Your task to perform on an android device: Show me productivity apps on the Play Store Image 0: 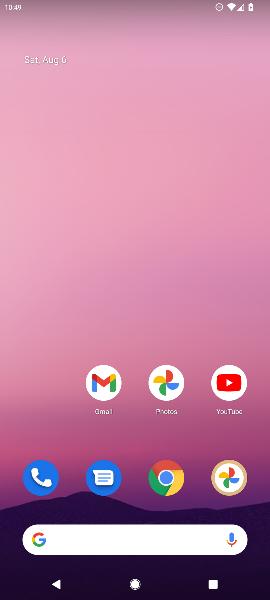
Step 0: drag from (132, 518) to (137, 76)
Your task to perform on an android device: Show me productivity apps on the Play Store Image 1: 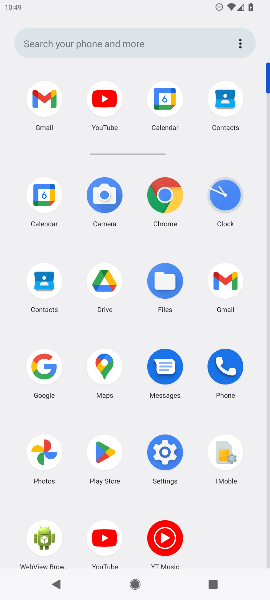
Step 1: click (95, 452)
Your task to perform on an android device: Show me productivity apps on the Play Store Image 2: 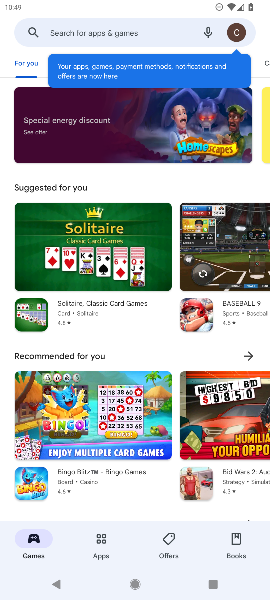
Step 2: click (93, 538)
Your task to perform on an android device: Show me productivity apps on the Play Store Image 3: 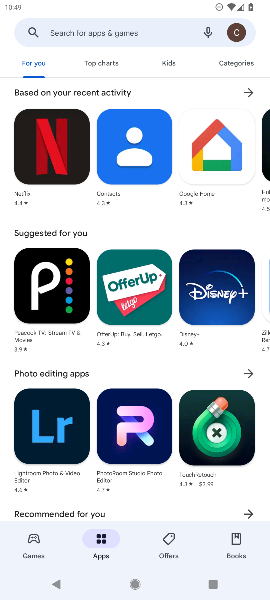
Step 3: click (232, 62)
Your task to perform on an android device: Show me productivity apps on the Play Store Image 4: 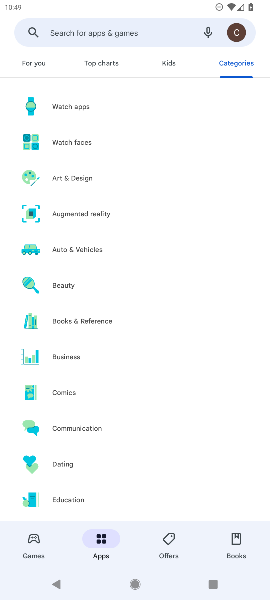
Step 4: drag from (82, 457) to (84, 216)
Your task to perform on an android device: Show me productivity apps on the Play Store Image 5: 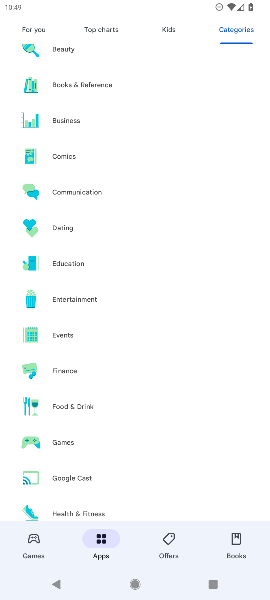
Step 5: drag from (67, 494) to (79, 298)
Your task to perform on an android device: Show me productivity apps on the Play Store Image 6: 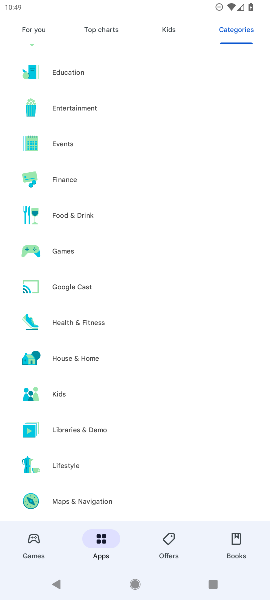
Step 6: drag from (95, 483) to (65, 262)
Your task to perform on an android device: Show me productivity apps on the Play Store Image 7: 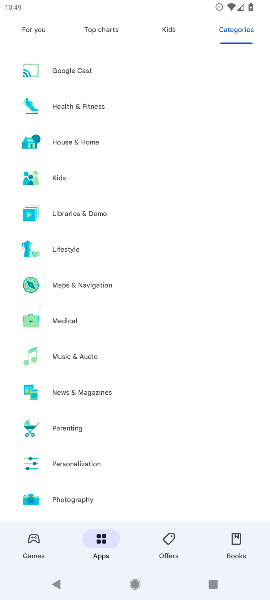
Step 7: drag from (82, 477) to (86, 316)
Your task to perform on an android device: Show me productivity apps on the Play Store Image 8: 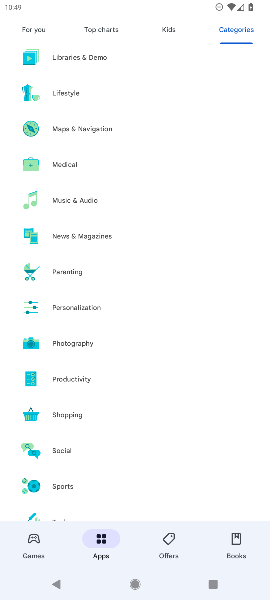
Step 8: click (67, 377)
Your task to perform on an android device: Show me productivity apps on the Play Store Image 9: 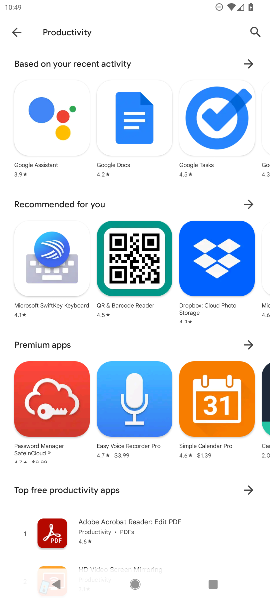
Step 9: task complete